Your task to perform on an android device: turn on the 12-hour format for clock Image 0: 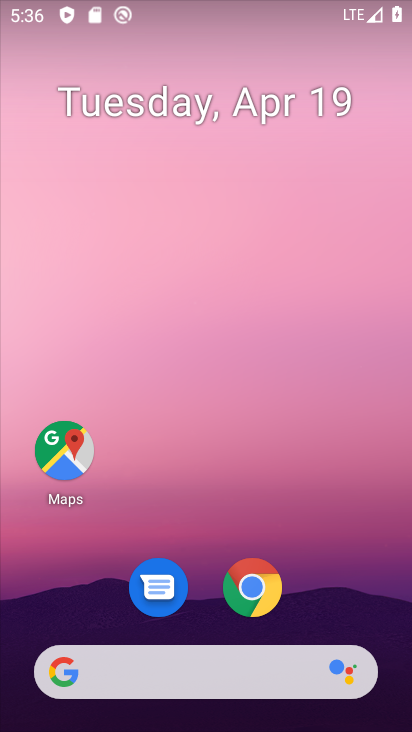
Step 0: drag from (200, 496) to (223, 83)
Your task to perform on an android device: turn on the 12-hour format for clock Image 1: 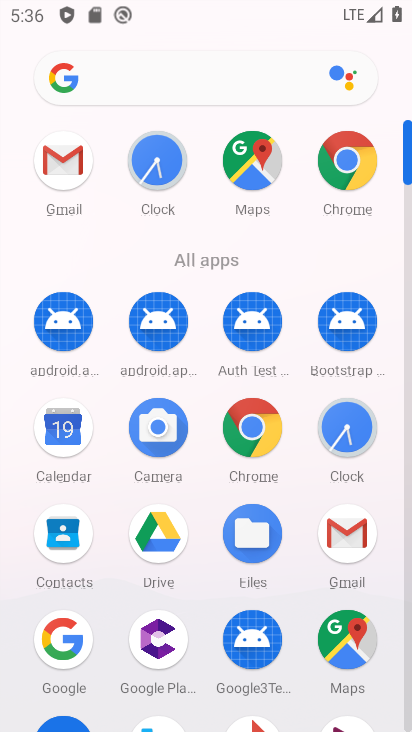
Step 1: click (174, 169)
Your task to perform on an android device: turn on the 12-hour format for clock Image 2: 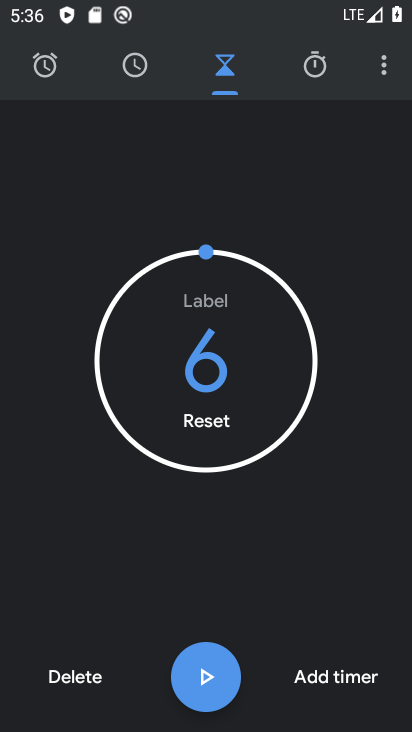
Step 2: click (386, 76)
Your task to perform on an android device: turn on the 12-hour format for clock Image 3: 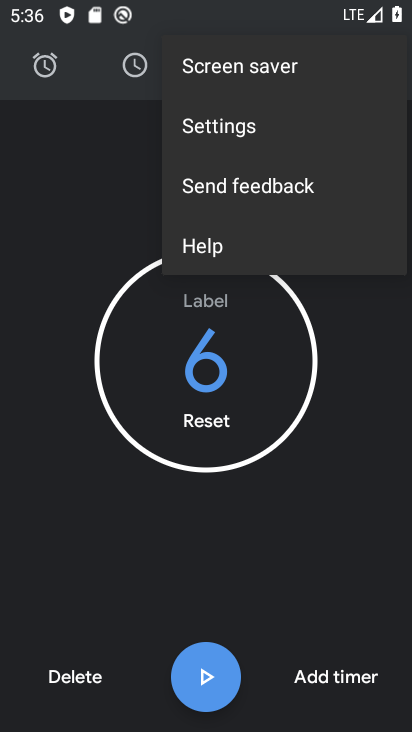
Step 3: click (258, 132)
Your task to perform on an android device: turn on the 12-hour format for clock Image 4: 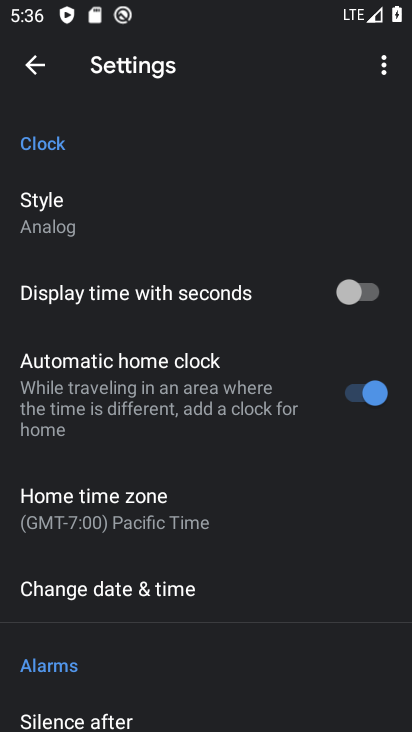
Step 4: task complete